Your task to perform on an android device: check android version Image 0: 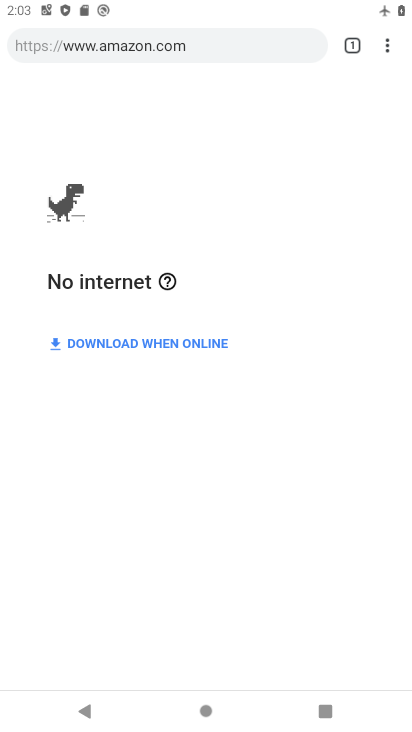
Step 0: press home button
Your task to perform on an android device: check android version Image 1: 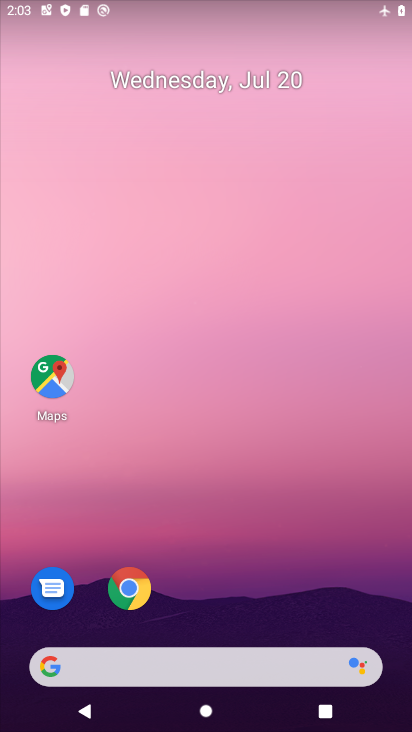
Step 1: drag from (252, 566) to (380, 32)
Your task to perform on an android device: check android version Image 2: 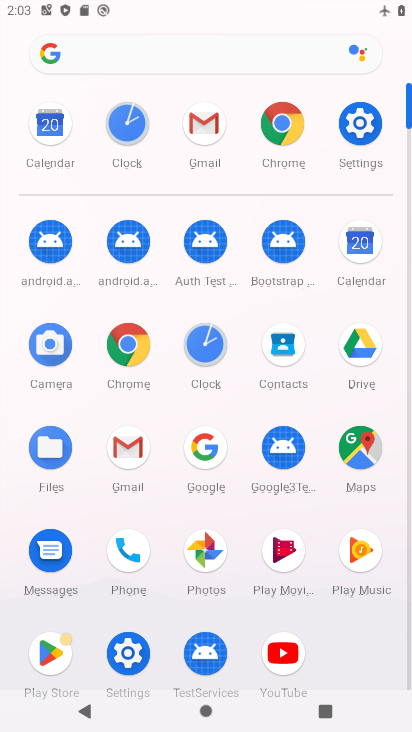
Step 2: click (363, 115)
Your task to perform on an android device: check android version Image 3: 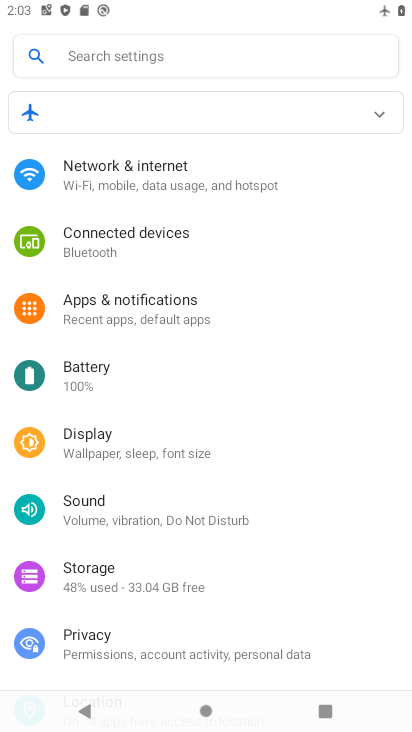
Step 3: task complete